Your task to perform on an android device: Search for Italian restaurants on Maps Image 0: 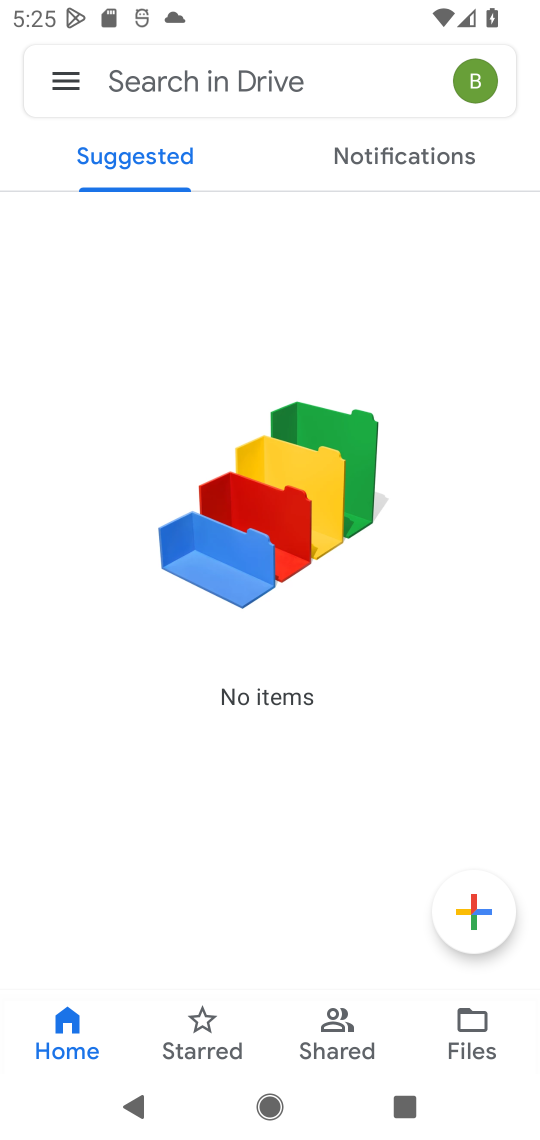
Step 0: press home button
Your task to perform on an android device: Search for Italian restaurants on Maps Image 1: 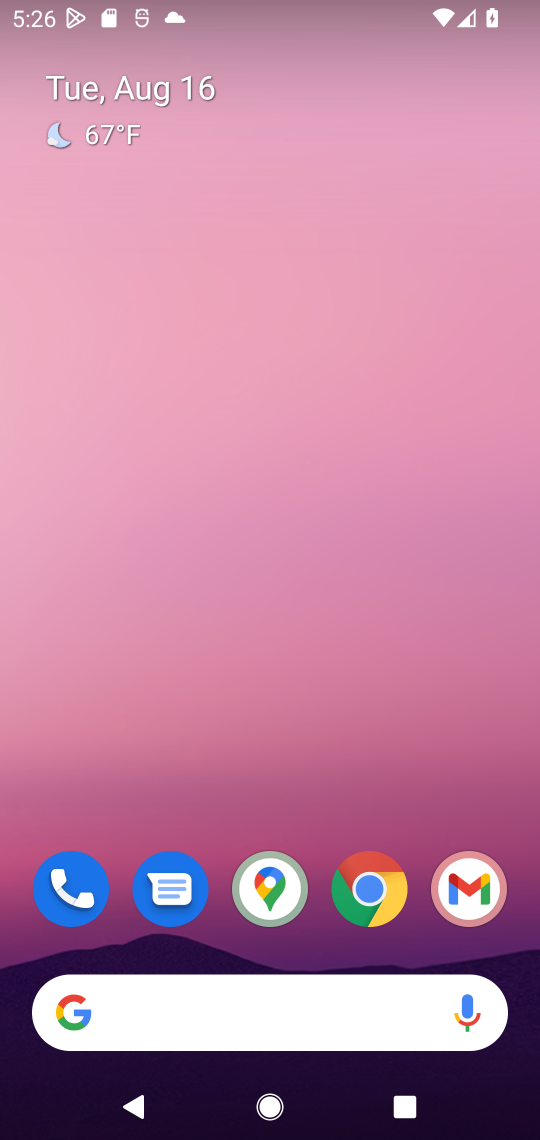
Step 1: drag from (302, 731) to (200, 13)
Your task to perform on an android device: Search for Italian restaurants on Maps Image 2: 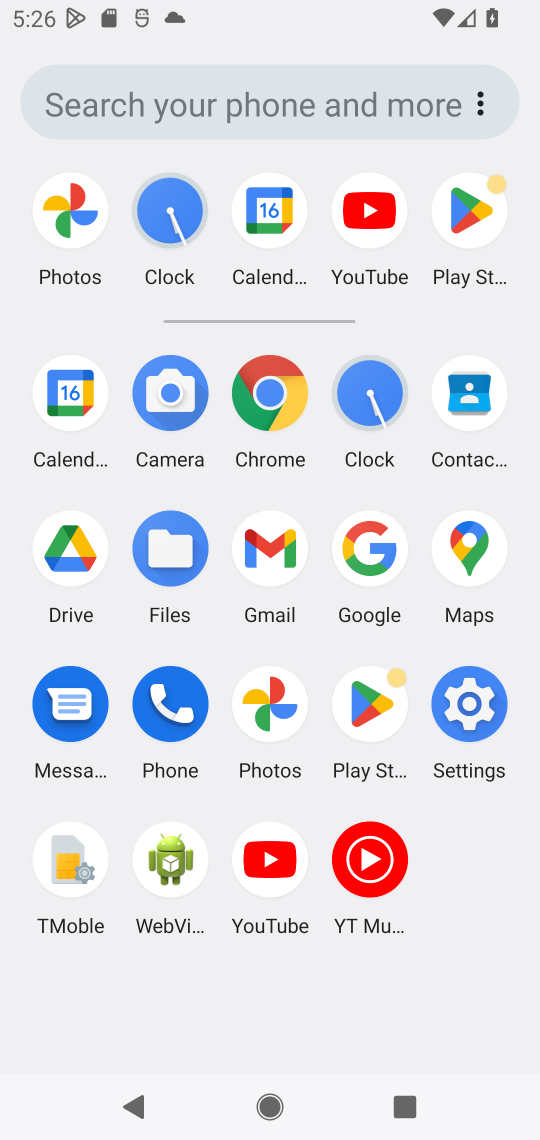
Step 2: click (482, 543)
Your task to perform on an android device: Search for Italian restaurants on Maps Image 3: 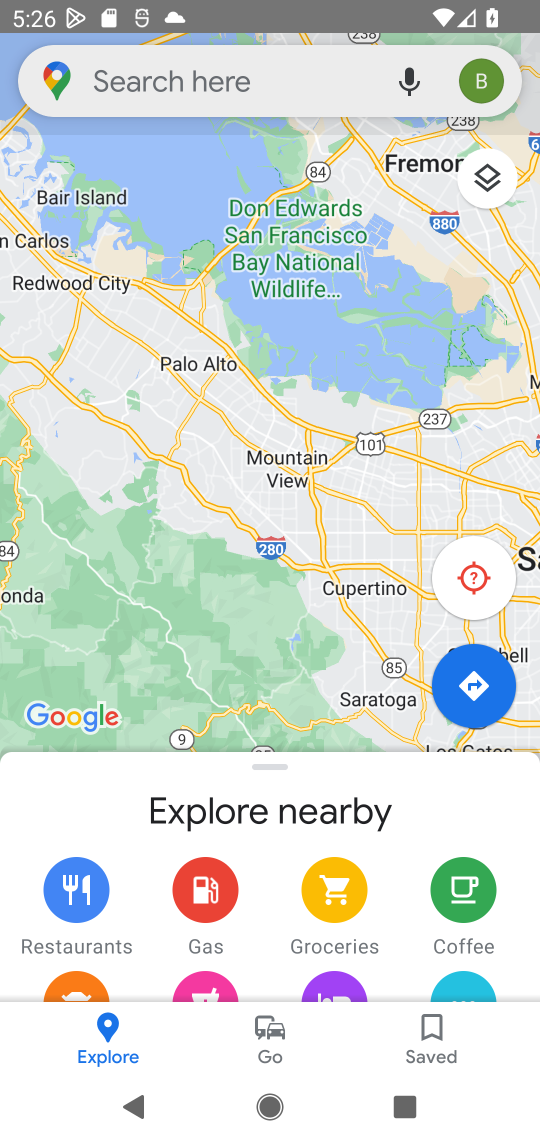
Step 3: click (265, 77)
Your task to perform on an android device: Search for Italian restaurants on Maps Image 4: 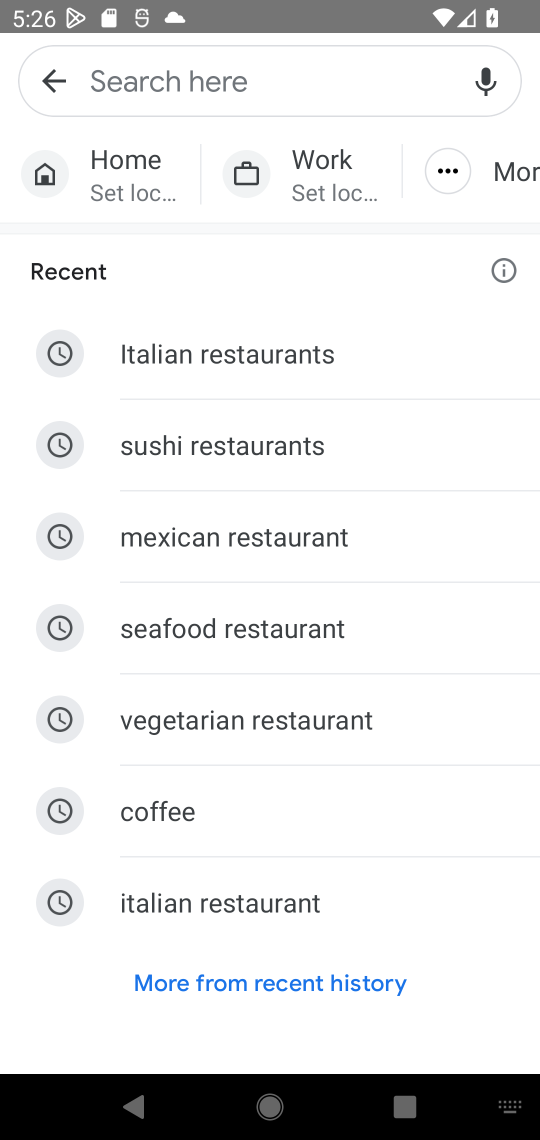
Step 4: type "Italian restaurants"
Your task to perform on an android device: Search for Italian restaurants on Maps Image 5: 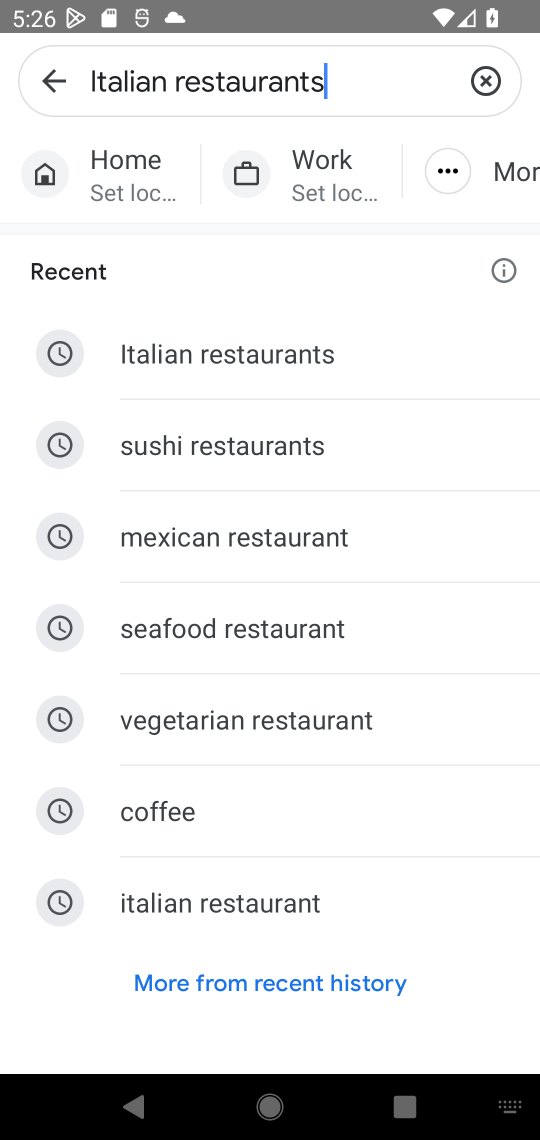
Step 5: press enter
Your task to perform on an android device: Search for Italian restaurants on Maps Image 6: 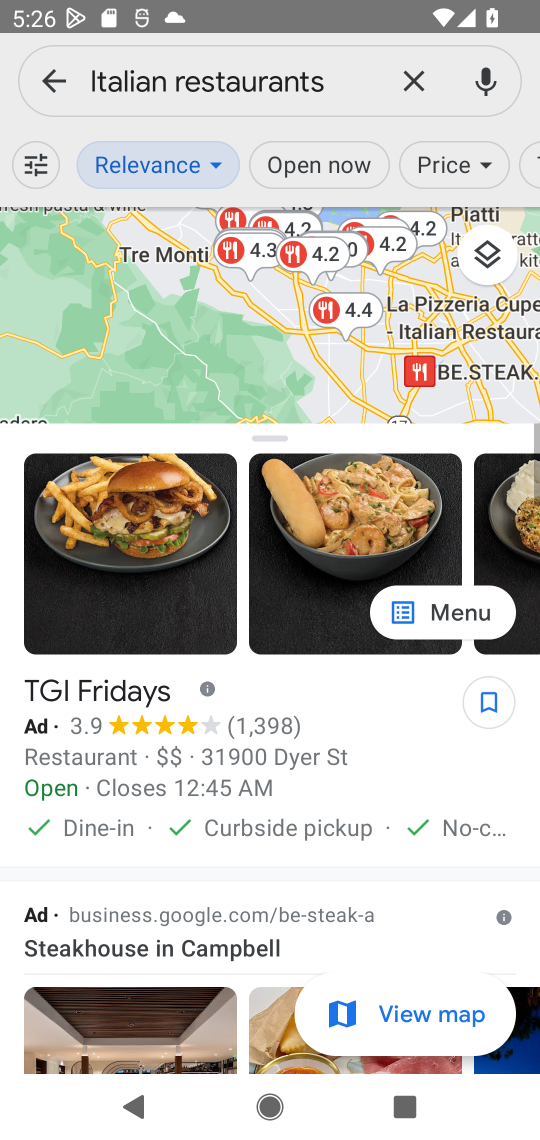
Step 6: task complete